Your task to perform on an android device: clear all cookies in the chrome app Image 0: 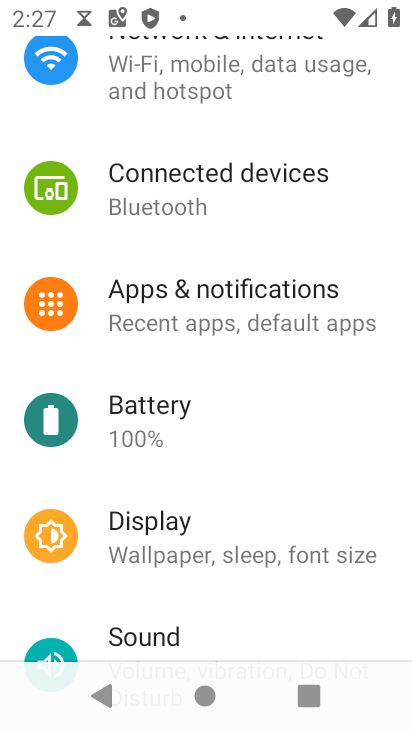
Step 0: press home button
Your task to perform on an android device: clear all cookies in the chrome app Image 1: 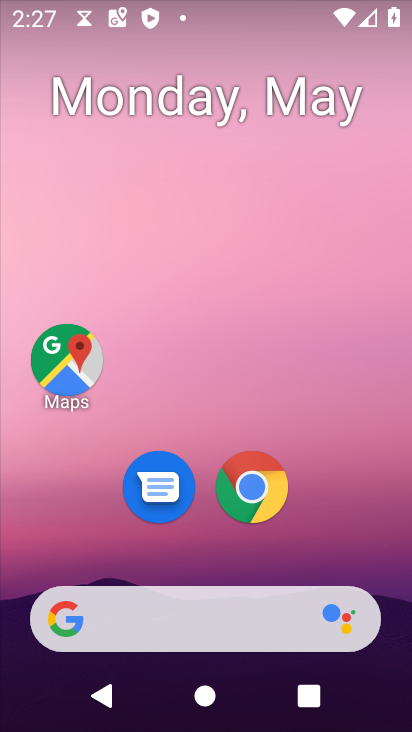
Step 1: click (267, 487)
Your task to perform on an android device: clear all cookies in the chrome app Image 2: 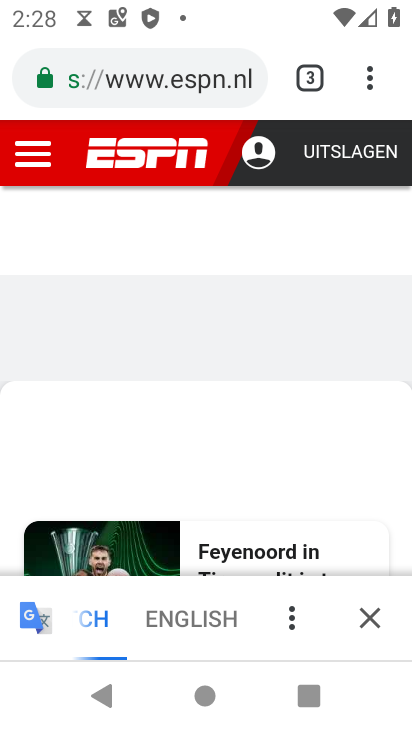
Step 2: click (377, 75)
Your task to perform on an android device: clear all cookies in the chrome app Image 3: 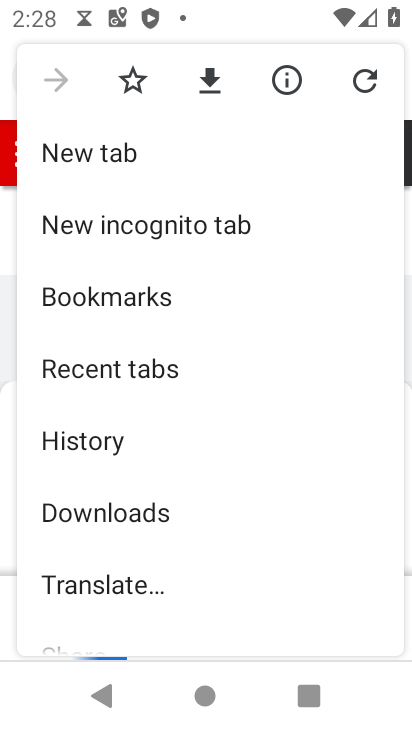
Step 3: click (213, 434)
Your task to perform on an android device: clear all cookies in the chrome app Image 4: 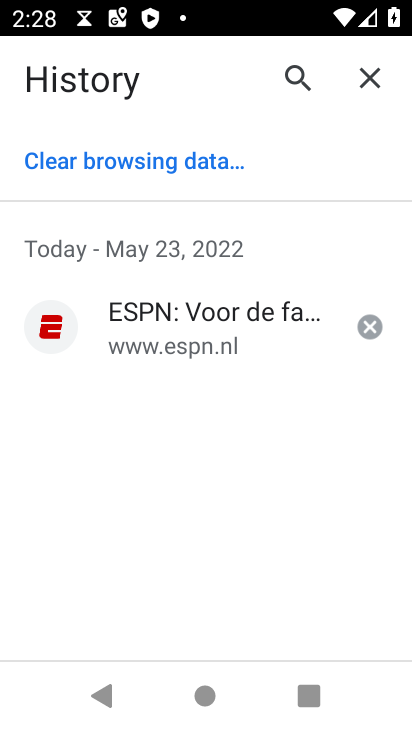
Step 4: click (183, 161)
Your task to perform on an android device: clear all cookies in the chrome app Image 5: 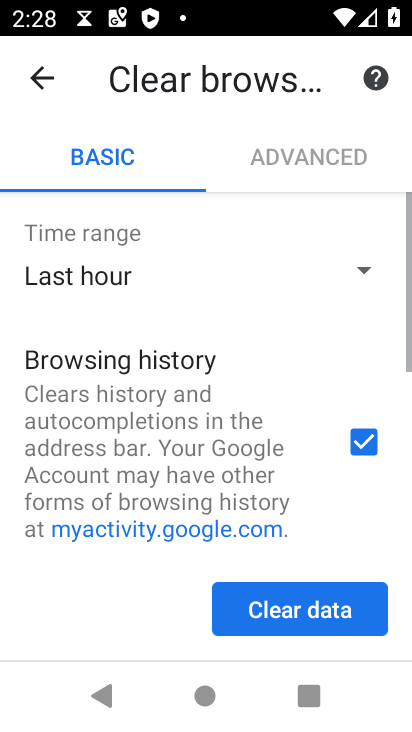
Step 5: drag from (248, 522) to (249, 234)
Your task to perform on an android device: clear all cookies in the chrome app Image 6: 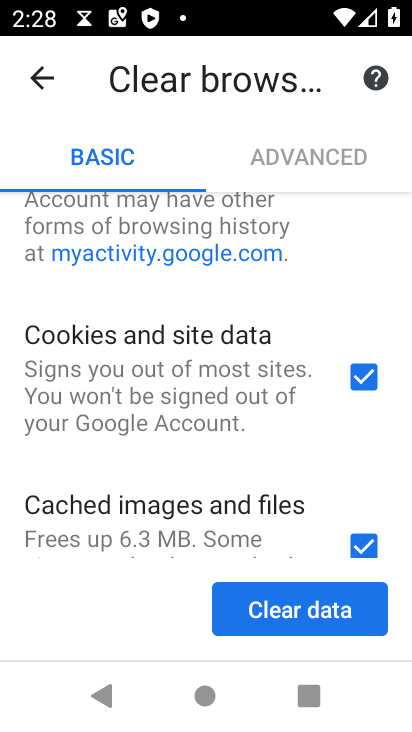
Step 6: click (363, 543)
Your task to perform on an android device: clear all cookies in the chrome app Image 7: 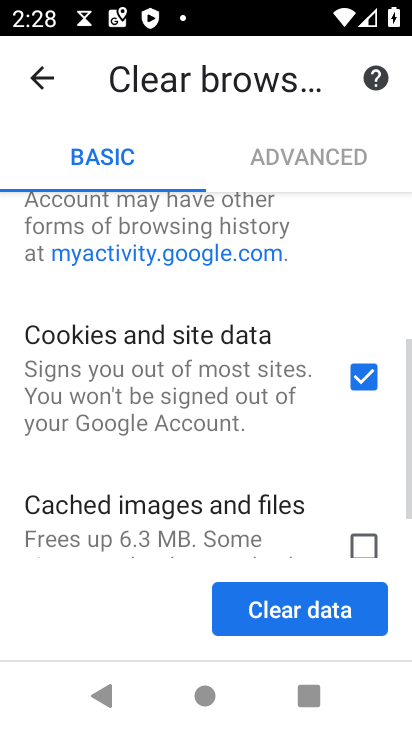
Step 7: drag from (328, 270) to (318, 505)
Your task to perform on an android device: clear all cookies in the chrome app Image 8: 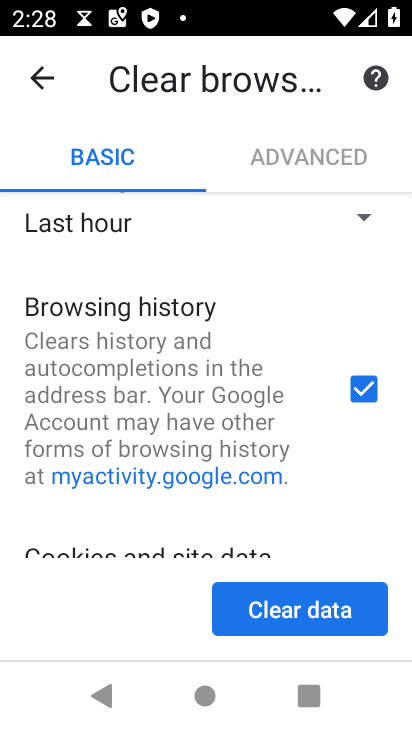
Step 8: click (369, 384)
Your task to perform on an android device: clear all cookies in the chrome app Image 9: 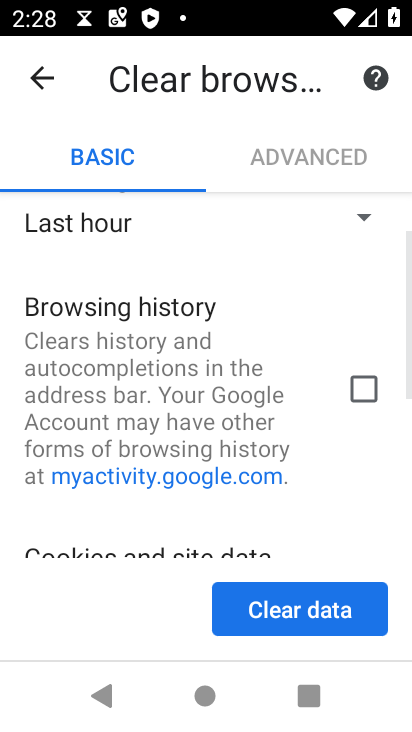
Step 9: drag from (318, 520) to (296, 259)
Your task to perform on an android device: clear all cookies in the chrome app Image 10: 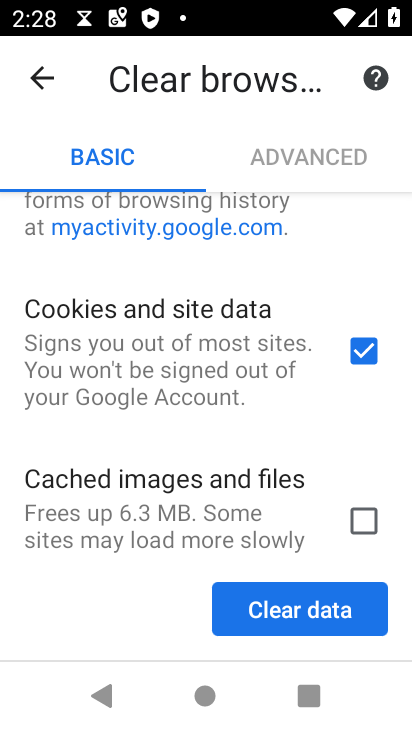
Step 10: click (303, 605)
Your task to perform on an android device: clear all cookies in the chrome app Image 11: 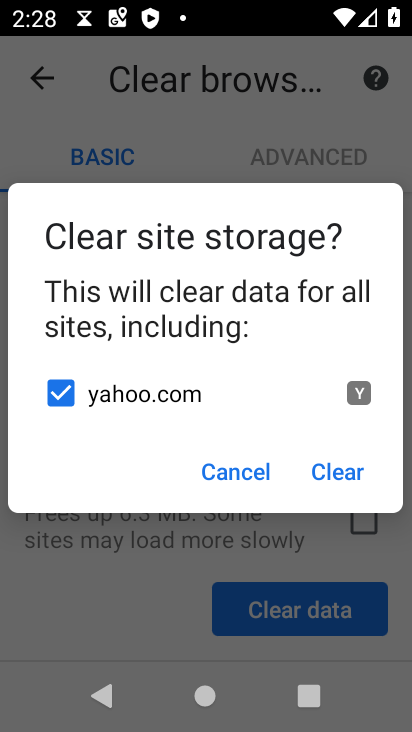
Step 11: click (345, 472)
Your task to perform on an android device: clear all cookies in the chrome app Image 12: 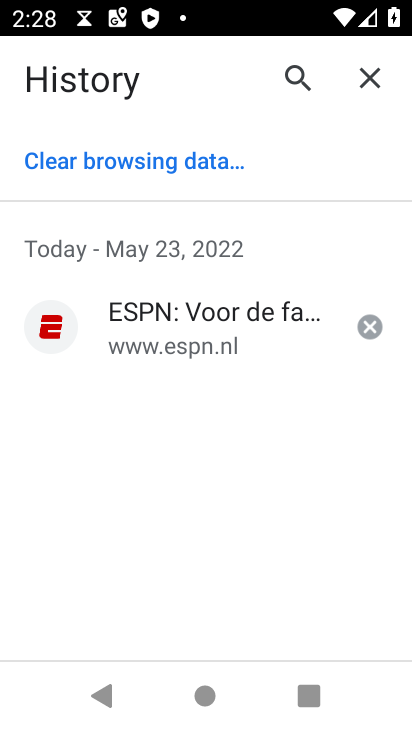
Step 12: task complete